Your task to perform on an android device: toggle notifications settings in the gmail app Image 0: 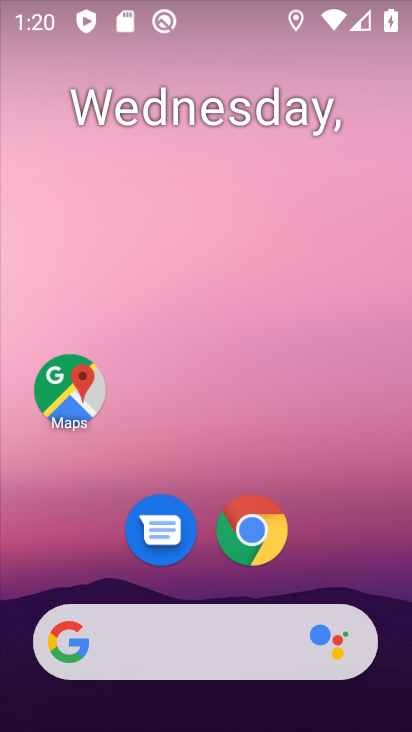
Step 0: drag from (119, 598) to (212, 138)
Your task to perform on an android device: toggle notifications settings in the gmail app Image 1: 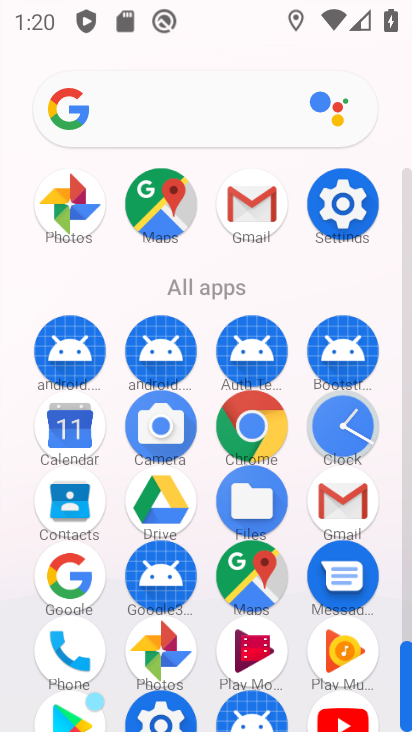
Step 1: click (319, 484)
Your task to perform on an android device: toggle notifications settings in the gmail app Image 2: 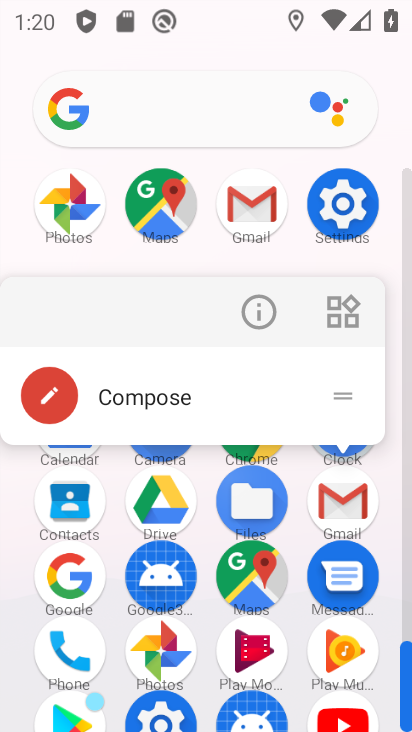
Step 2: click (336, 510)
Your task to perform on an android device: toggle notifications settings in the gmail app Image 3: 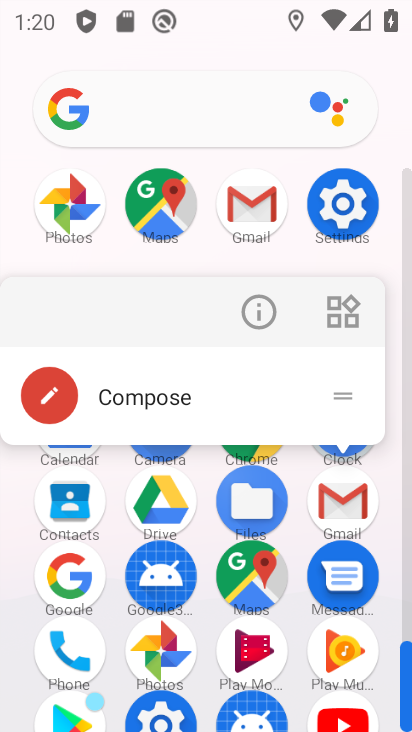
Step 3: click (337, 508)
Your task to perform on an android device: toggle notifications settings in the gmail app Image 4: 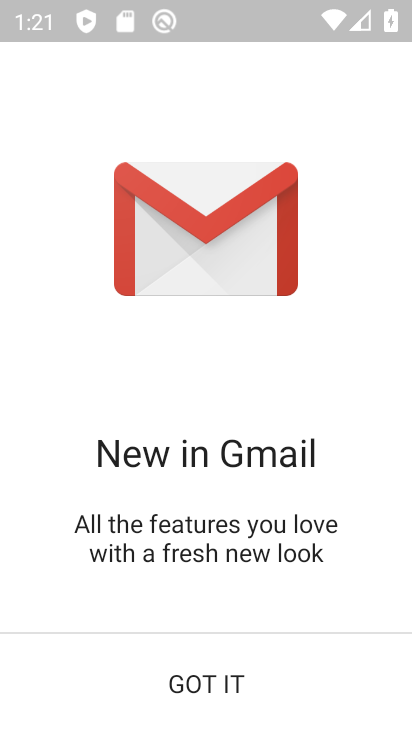
Step 4: click (187, 678)
Your task to perform on an android device: toggle notifications settings in the gmail app Image 5: 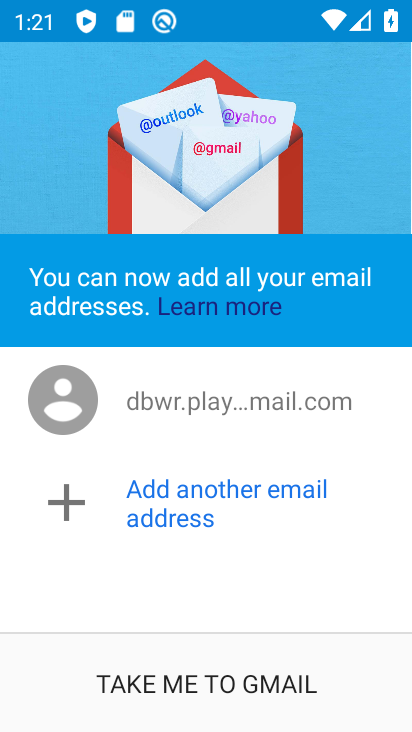
Step 5: click (275, 717)
Your task to perform on an android device: toggle notifications settings in the gmail app Image 6: 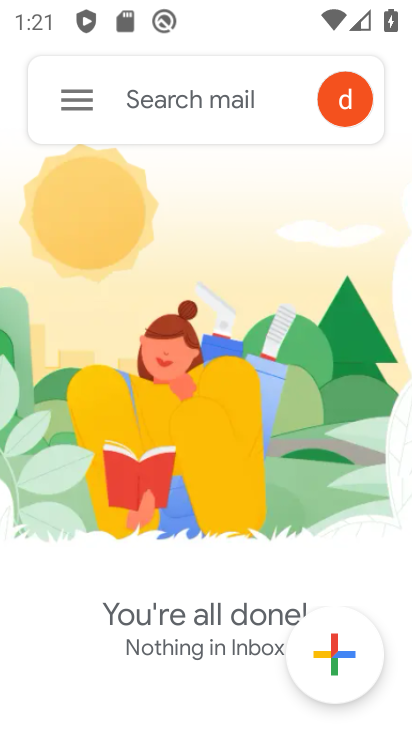
Step 6: click (73, 114)
Your task to perform on an android device: toggle notifications settings in the gmail app Image 7: 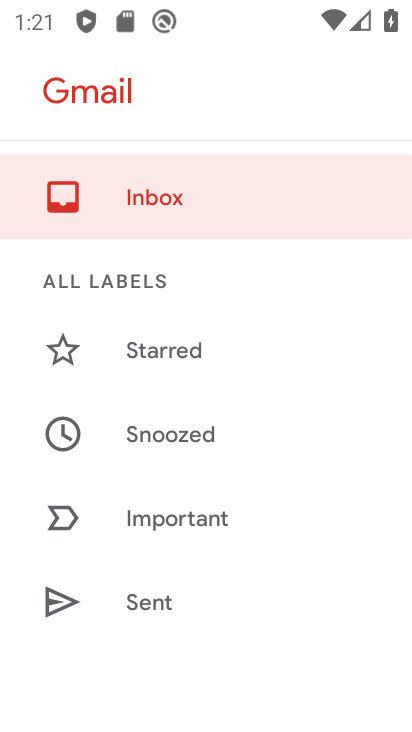
Step 7: drag from (160, 547) to (304, 176)
Your task to perform on an android device: toggle notifications settings in the gmail app Image 8: 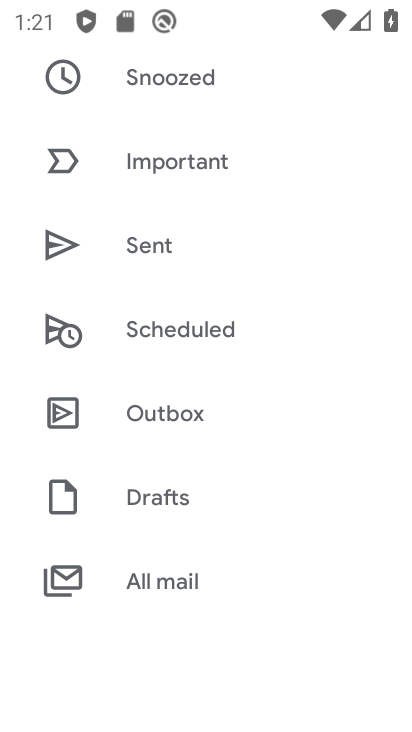
Step 8: drag from (260, 604) to (362, 225)
Your task to perform on an android device: toggle notifications settings in the gmail app Image 9: 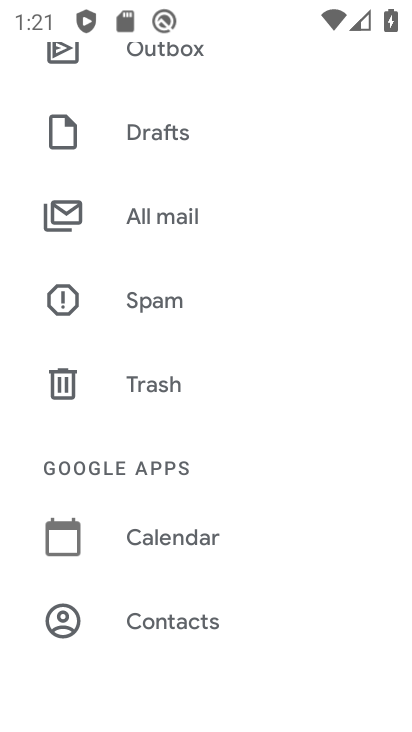
Step 9: drag from (232, 607) to (342, 223)
Your task to perform on an android device: toggle notifications settings in the gmail app Image 10: 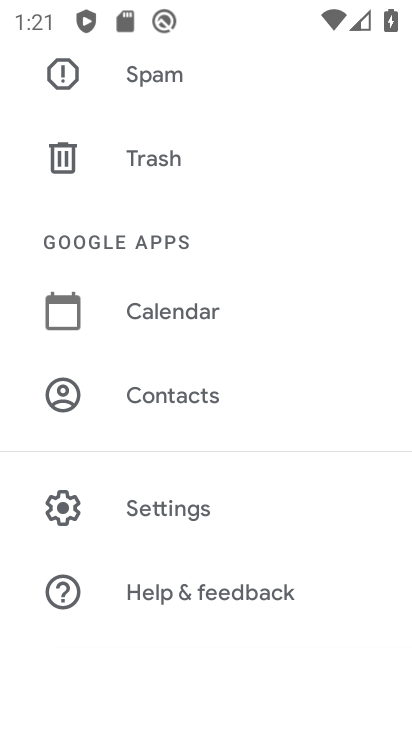
Step 10: click (260, 501)
Your task to perform on an android device: toggle notifications settings in the gmail app Image 11: 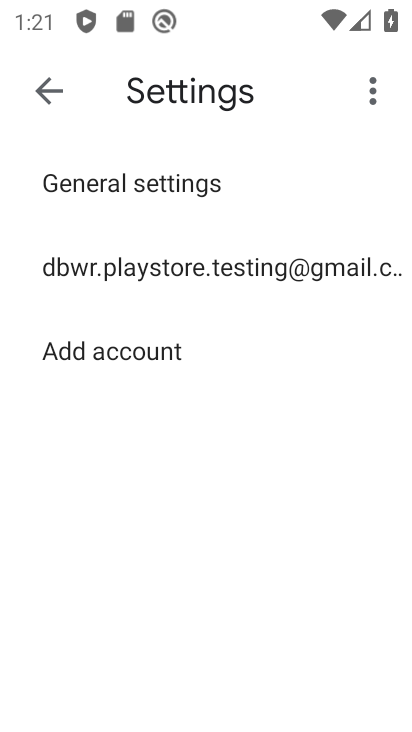
Step 11: click (258, 262)
Your task to perform on an android device: toggle notifications settings in the gmail app Image 12: 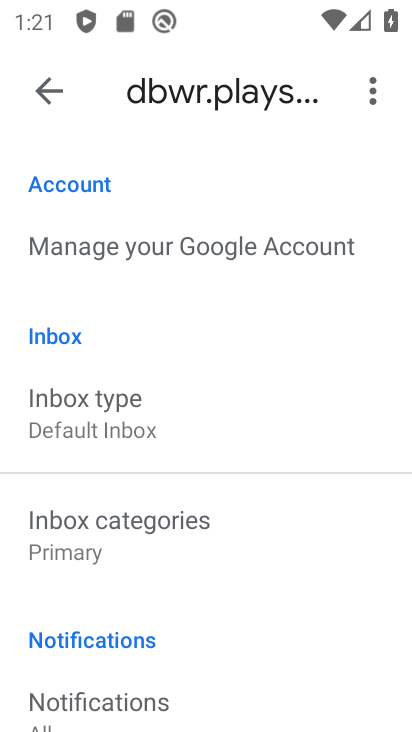
Step 12: drag from (207, 668) to (347, 299)
Your task to perform on an android device: toggle notifications settings in the gmail app Image 13: 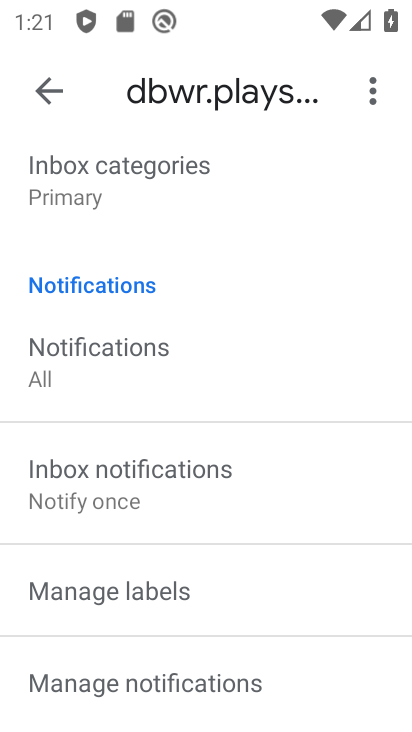
Step 13: drag from (218, 661) to (296, 379)
Your task to perform on an android device: toggle notifications settings in the gmail app Image 14: 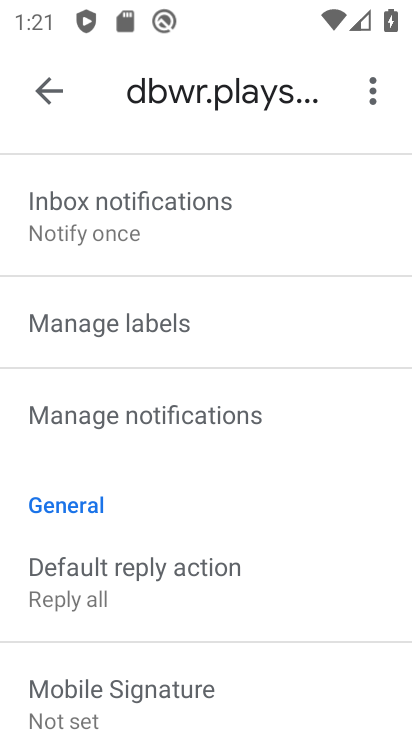
Step 14: drag from (219, 680) to (255, 636)
Your task to perform on an android device: toggle notifications settings in the gmail app Image 15: 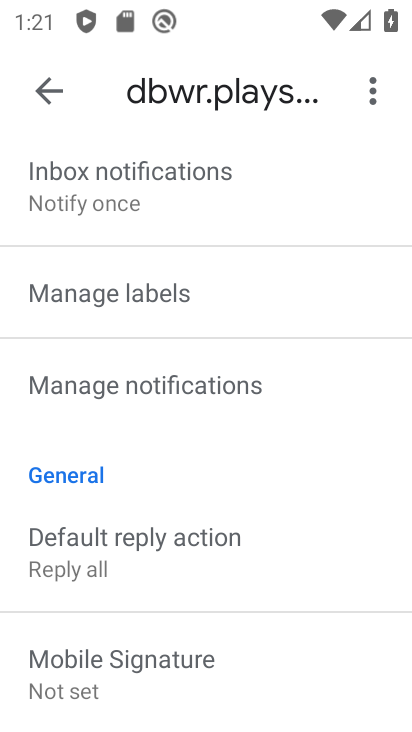
Step 15: click (260, 398)
Your task to perform on an android device: toggle notifications settings in the gmail app Image 16: 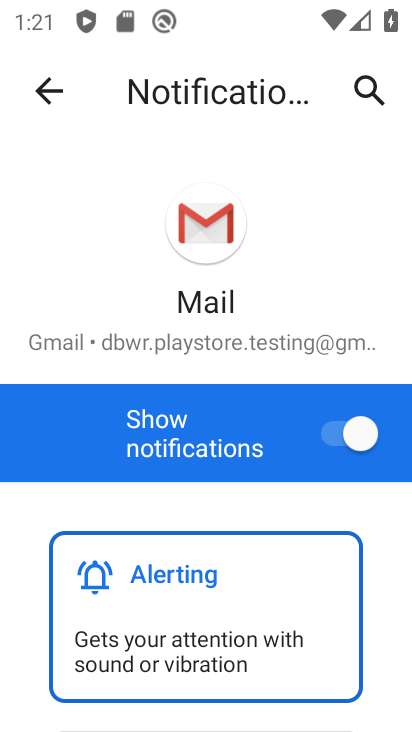
Step 16: click (331, 435)
Your task to perform on an android device: toggle notifications settings in the gmail app Image 17: 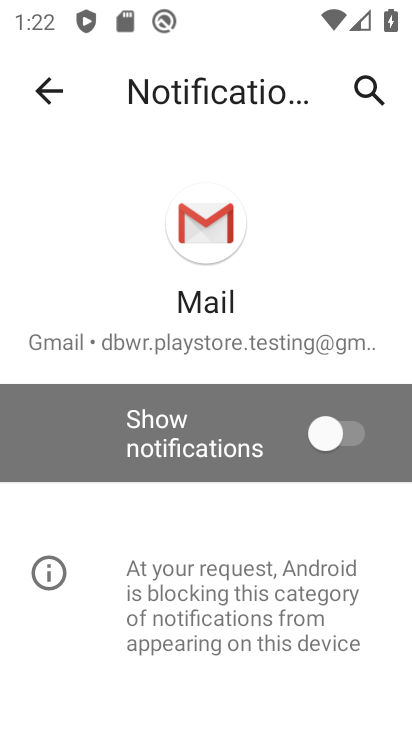
Step 17: task complete